Your task to perform on an android device: all mails in gmail Image 0: 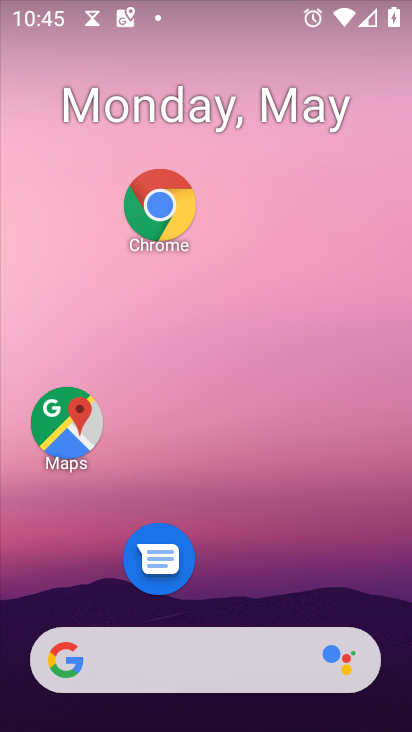
Step 0: drag from (251, 498) to (242, 241)
Your task to perform on an android device: all mails in gmail Image 1: 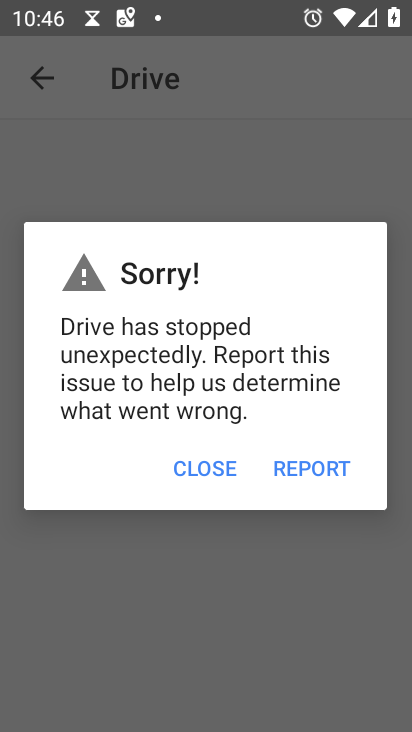
Step 1: click (209, 472)
Your task to perform on an android device: all mails in gmail Image 2: 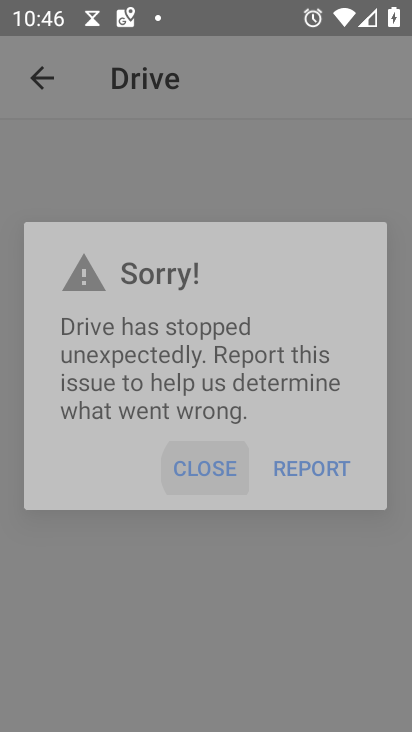
Step 2: click (209, 471)
Your task to perform on an android device: all mails in gmail Image 3: 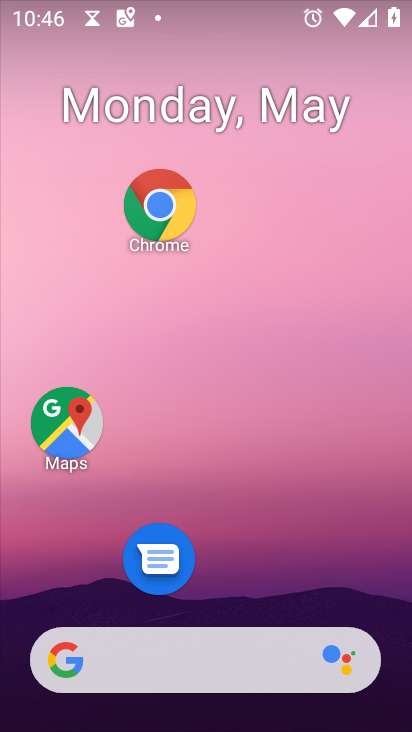
Step 3: drag from (245, 677) to (71, 18)
Your task to perform on an android device: all mails in gmail Image 4: 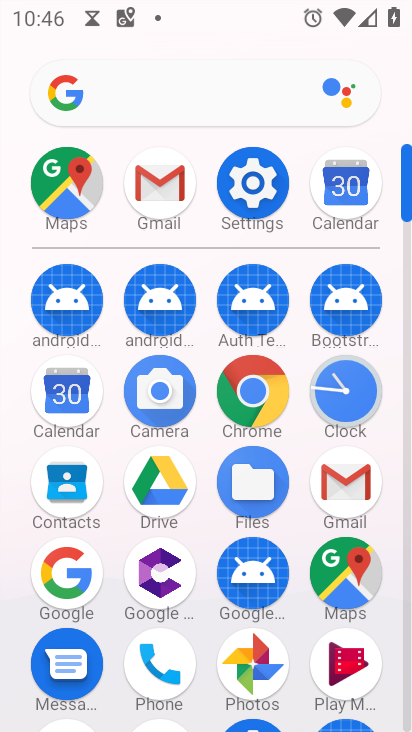
Step 4: click (144, 169)
Your task to perform on an android device: all mails in gmail Image 5: 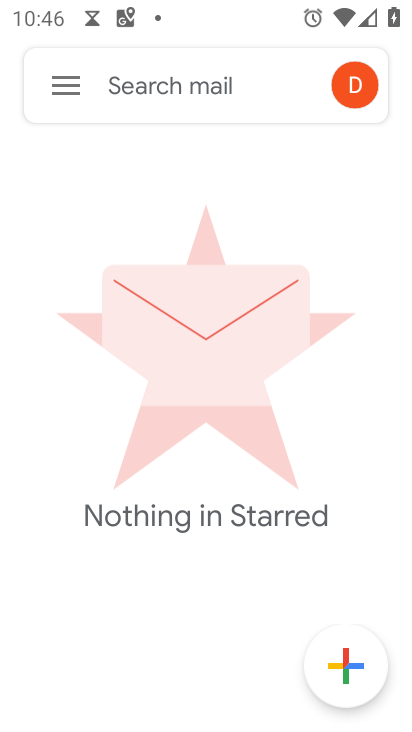
Step 5: click (69, 85)
Your task to perform on an android device: all mails in gmail Image 6: 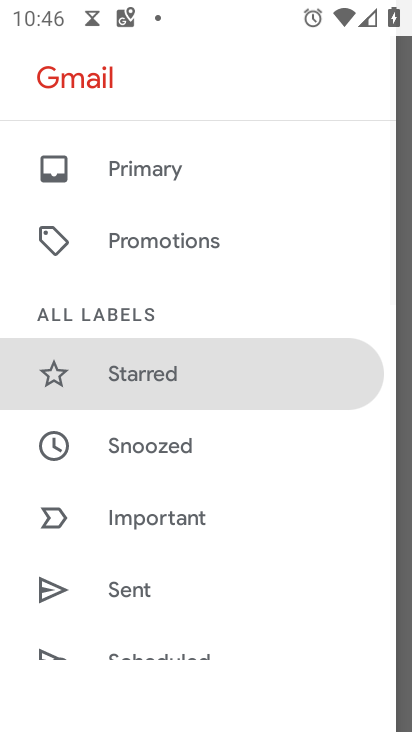
Step 6: drag from (179, 552) to (169, 140)
Your task to perform on an android device: all mails in gmail Image 7: 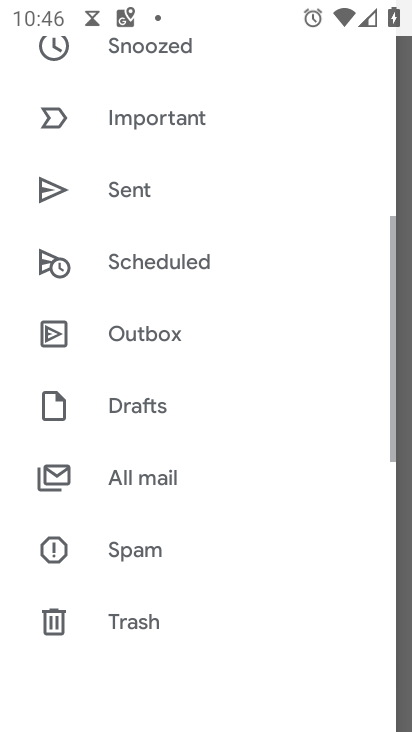
Step 7: drag from (203, 452) to (200, 218)
Your task to perform on an android device: all mails in gmail Image 8: 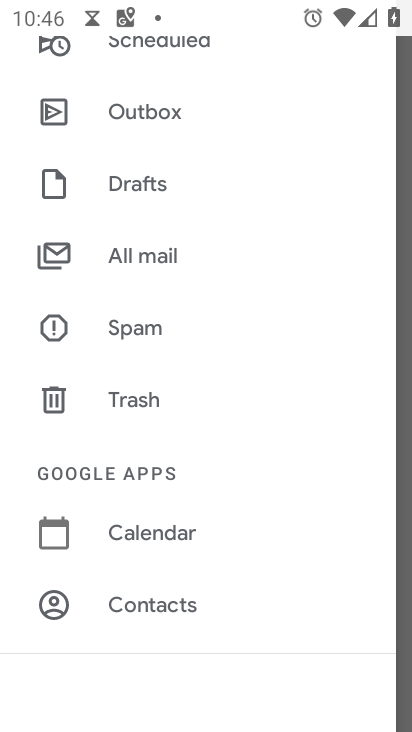
Step 8: click (139, 258)
Your task to perform on an android device: all mails in gmail Image 9: 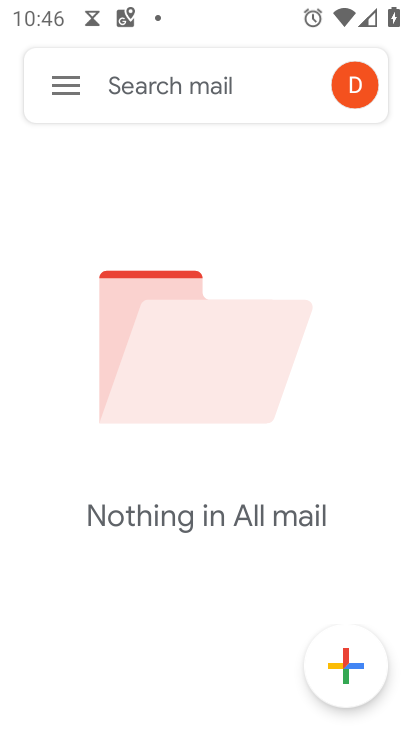
Step 9: task complete